Your task to perform on an android device: change the clock display to show seconds Image 0: 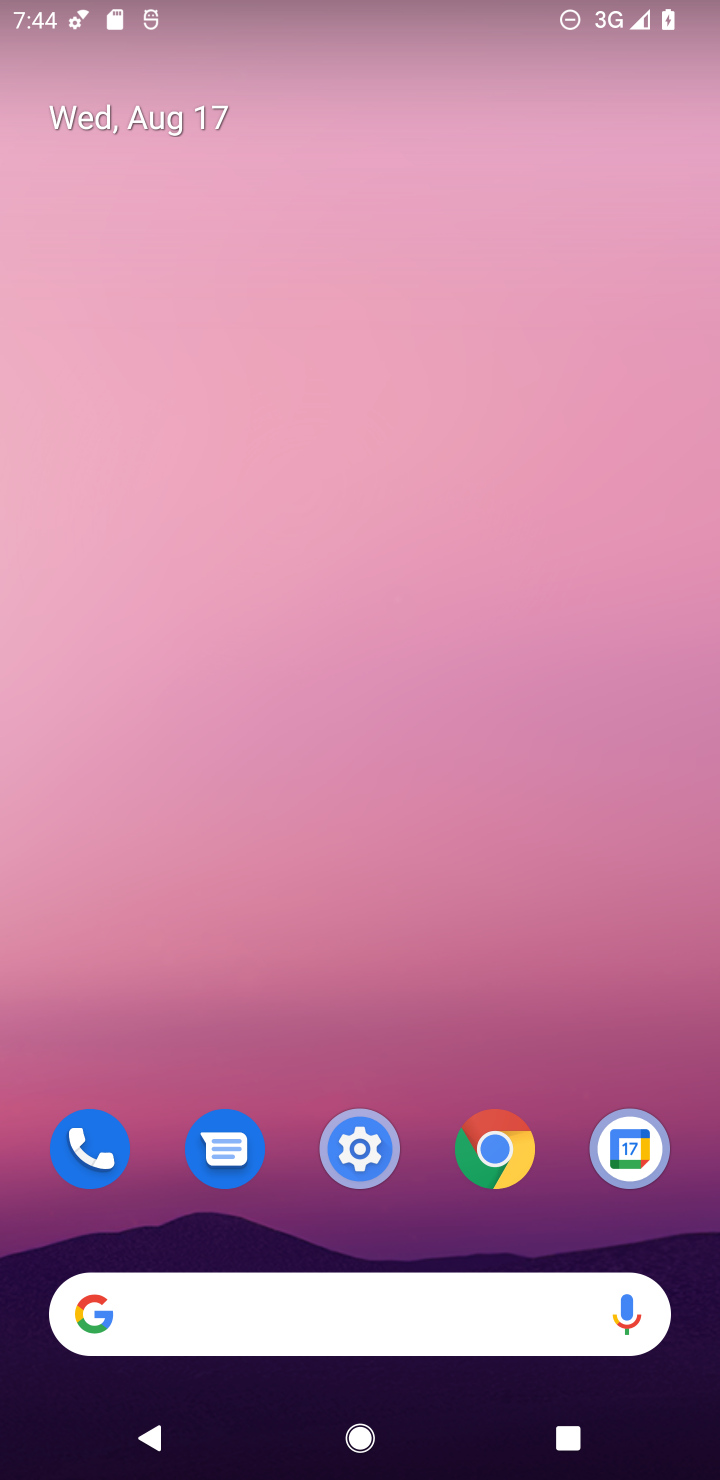
Step 0: drag from (440, 1236) to (361, 349)
Your task to perform on an android device: change the clock display to show seconds Image 1: 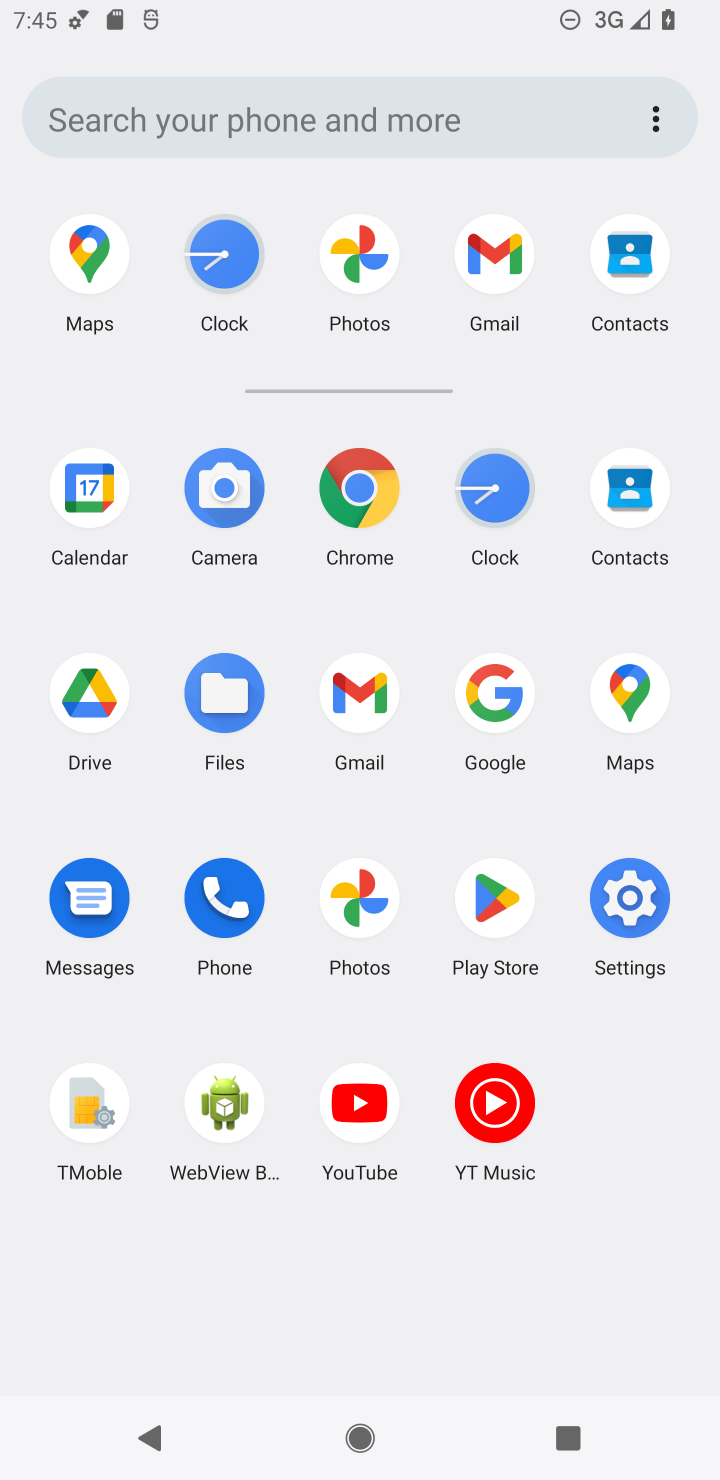
Step 1: click (224, 250)
Your task to perform on an android device: change the clock display to show seconds Image 2: 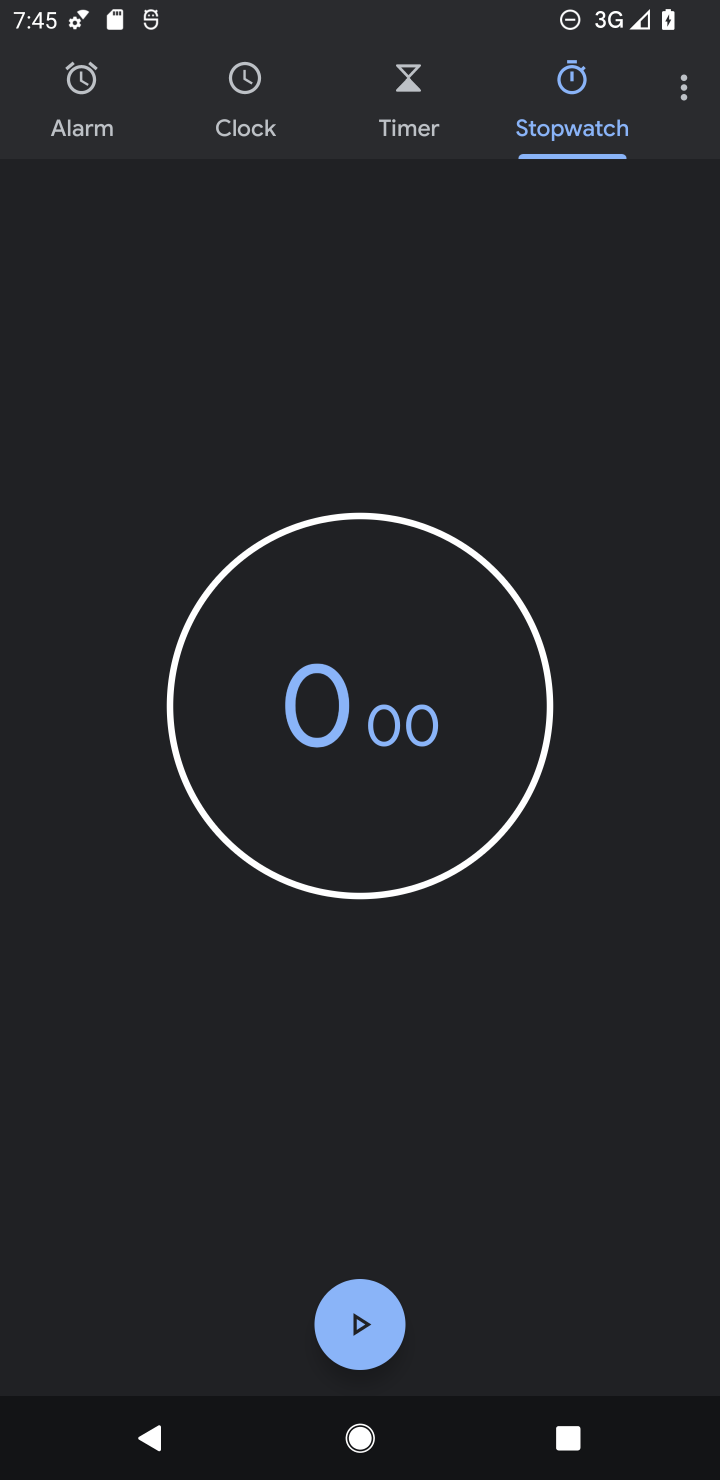
Step 2: click (685, 94)
Your task to perform on an android device: change the clock display to show seconds Image 3: 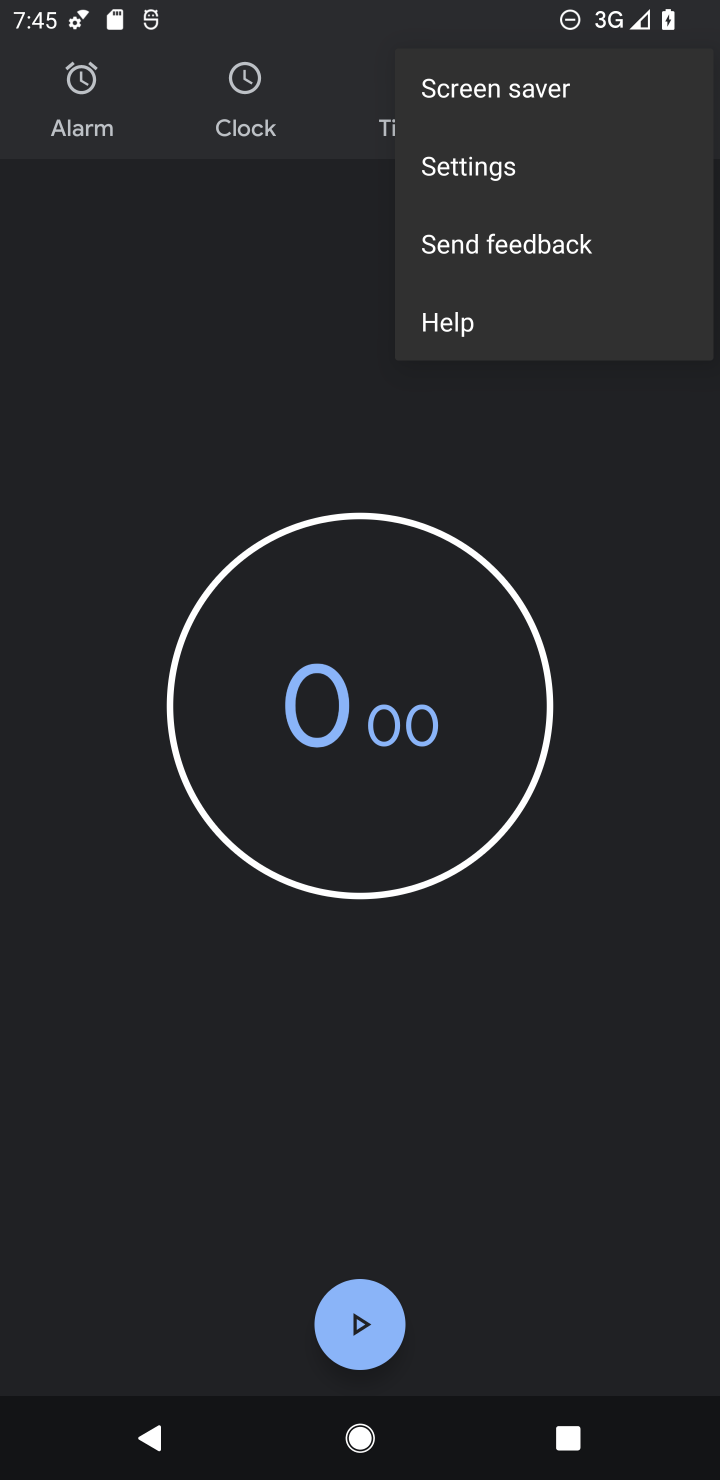
Step 3: click (481, 173)
Your task to perform on an android device: change the clock display to show seconds Image 4: 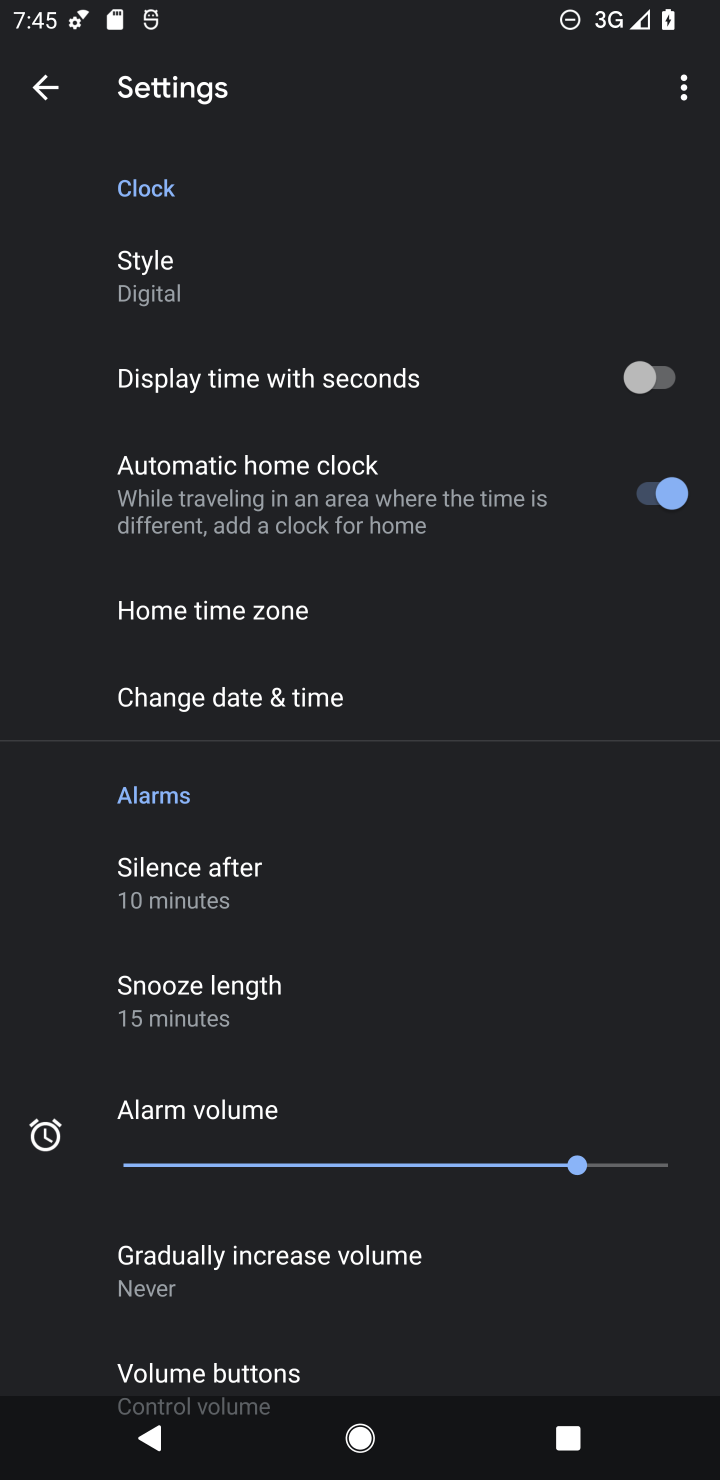
Step 4: click (641, 375)
Your task to perform on an android device: change the clock display to show seconds Image 5: 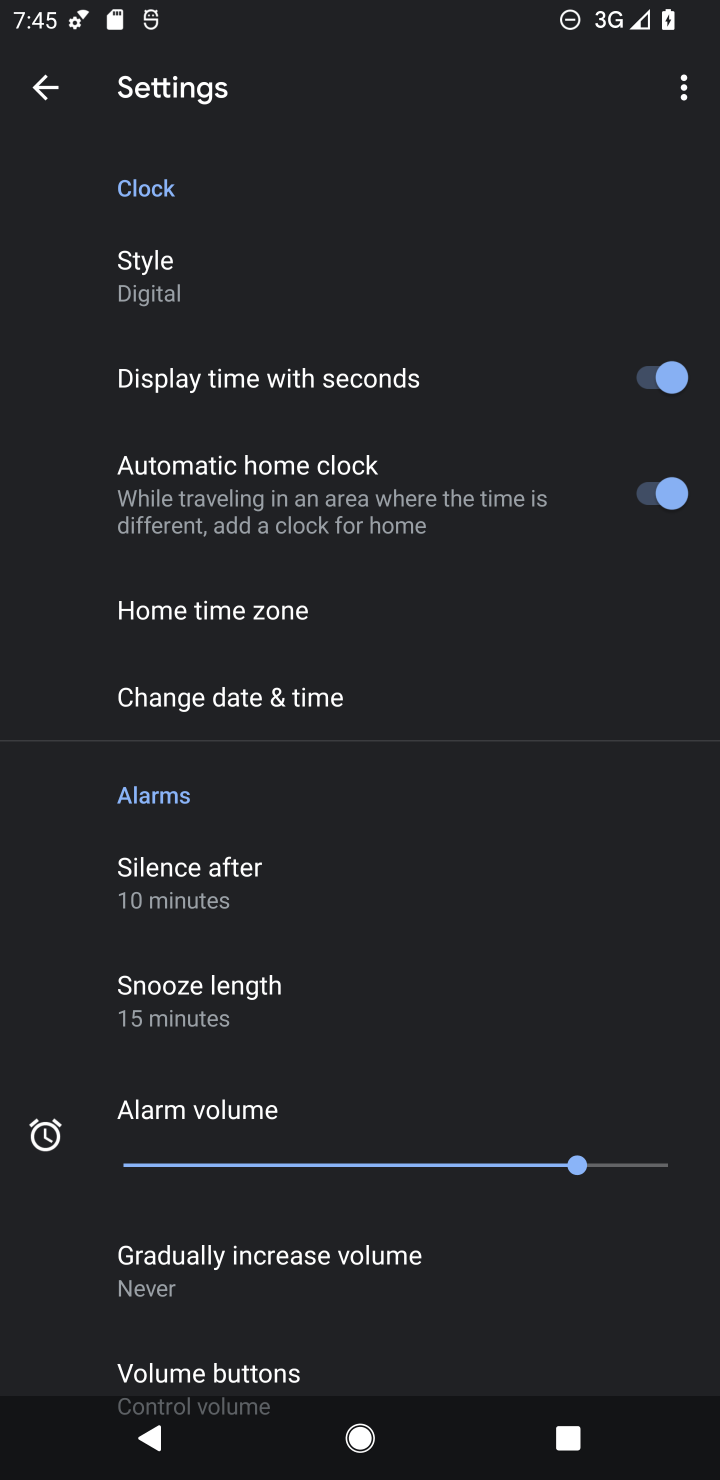
Step 5: task complete